Your task to perform on an android device: See recent photos Image 0: 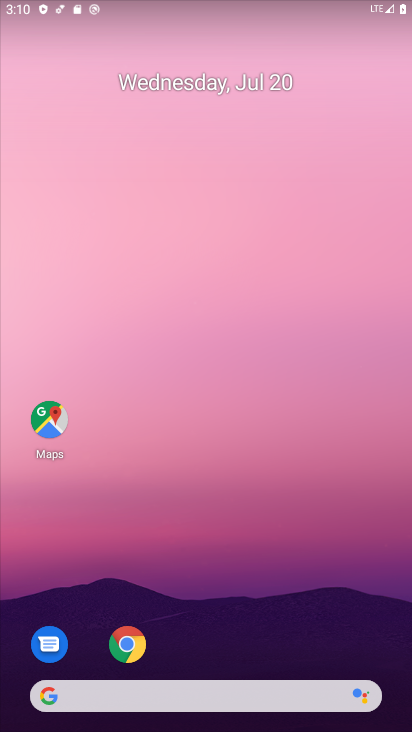
Step 0: drag from (57, 664) to (191, 280)
Your task to perform on an android device: See recent photos Image 1: 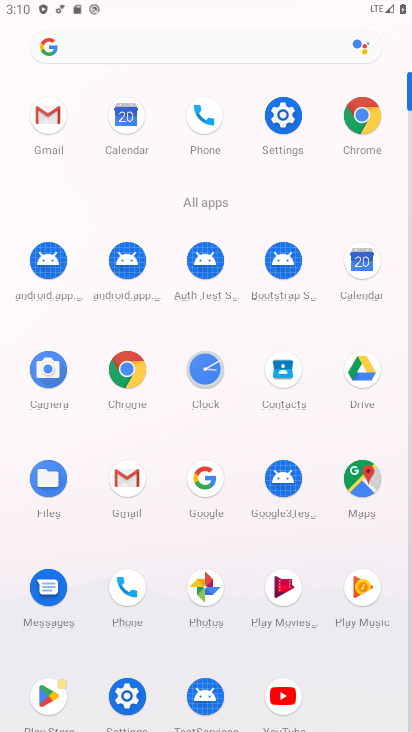
Step 1: click (221, 600)
Your task to perform on an android device: See recent photos Image 2: 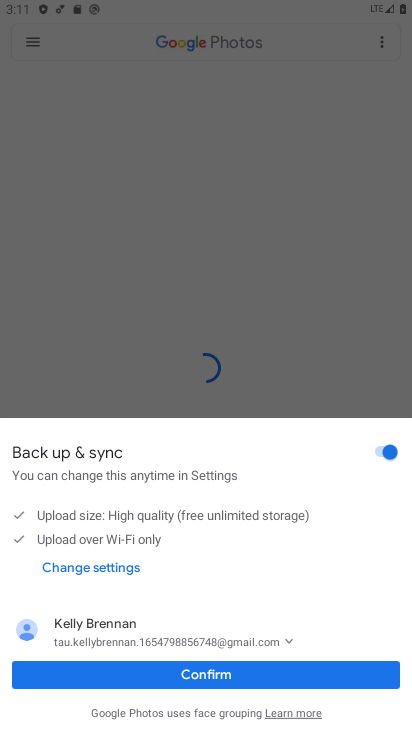
Step 2: click (206, 655)
Your task to perform on an android device: See recent photos Image 3: 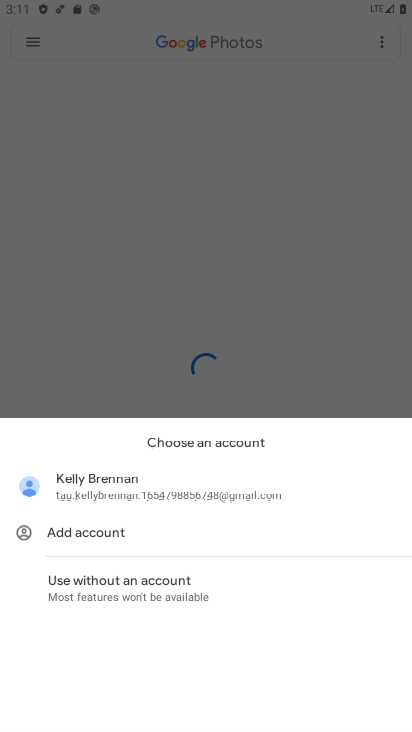
Step 3: click (206, 661)
Your task to perform on an android device: See recent photos Image 4: 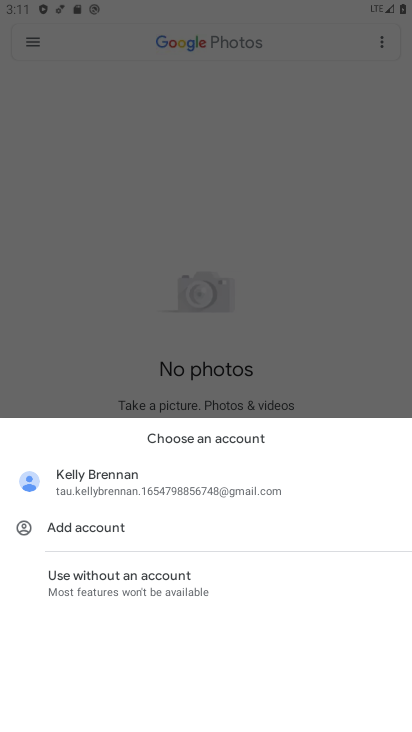
Step 4: click (197, 295)
Your task to perform on an android device: See recent photos Image 5: 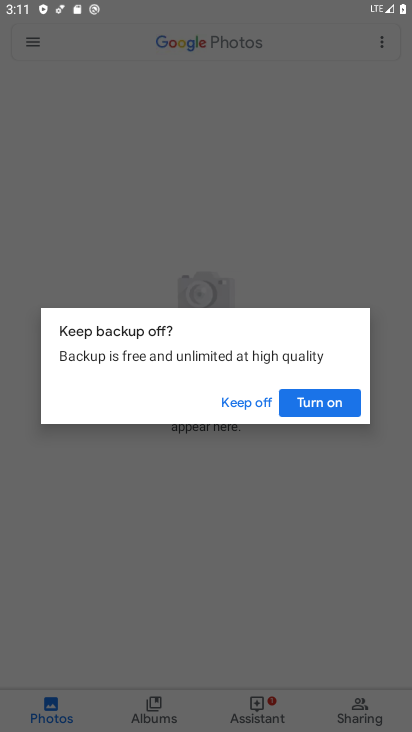
Step 5: task complete